Your task to perform on an android device: Go to internet settings Image 0: 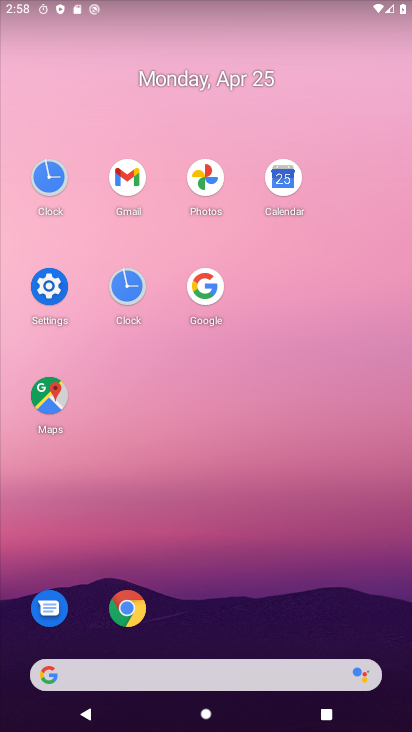
Step 0: click (127, 449)
Your task to perform on an android device: Go to internet settings Image 1: 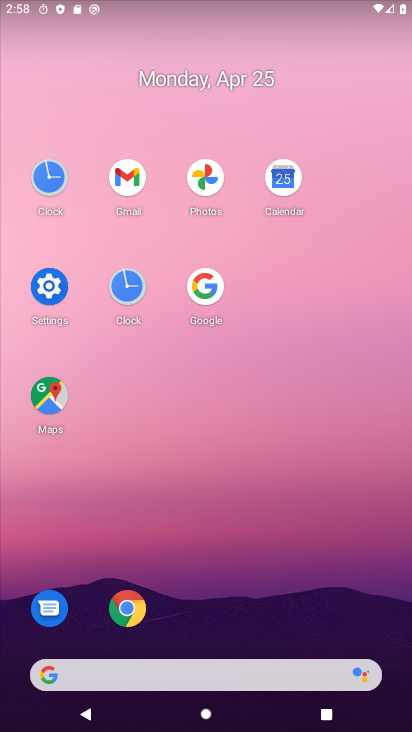
Step 1: click (45, 285)
Your task to perform on an android device: Go to internet settings Image 2: 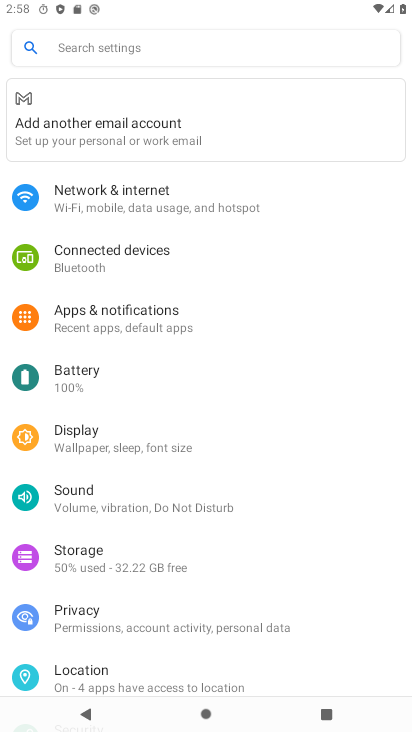
Step 2: click (130, 200)
Your task to perform on an android device: Go to internet settings Image 3: 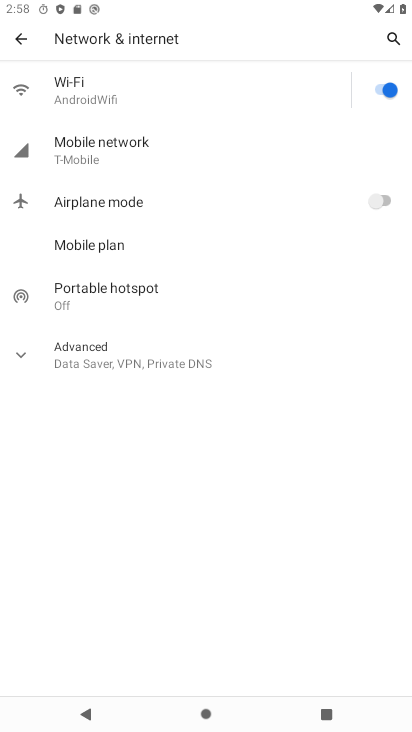
Step 3: task complete